Your task to perform on an android device: Open calendar and show me the first week of next month Image 0: 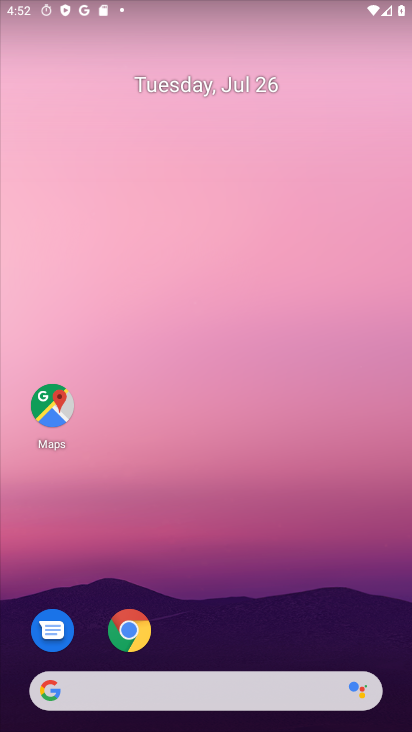
Step 0: drag from (243, 548) to (271, 60)
Your task to perform on an android device: Open calendar and show me the first week of next month Image 1: 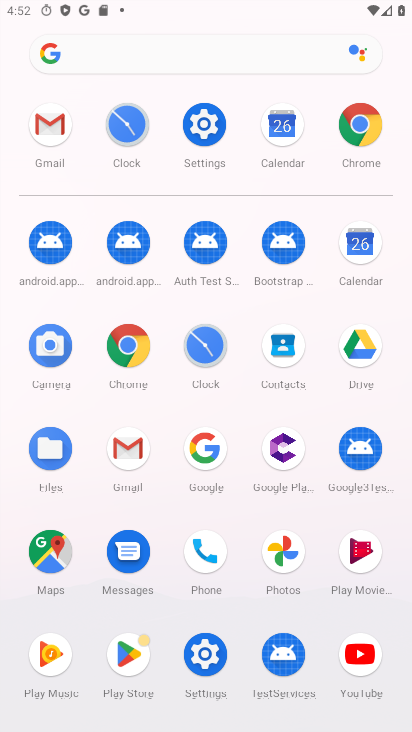
Step 1: click (361, 250)
Your task to perform on an android device: Open calendar and show me the first week of next month Image 2: 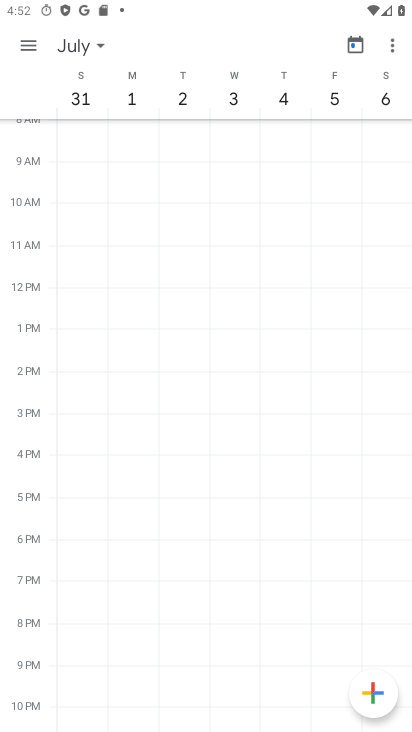
Step 2: click (91, 41)
Your task to perform on an android device: Open calendar and show me the first week of next month Image 3: 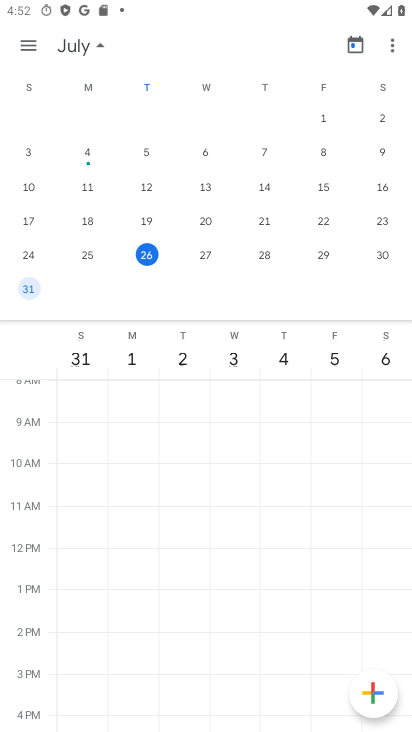
Step 3: drag from (367, 194) to (95, 182)
Your task to perform on an android device: Open calendar and show me the first week of next month Image 4: 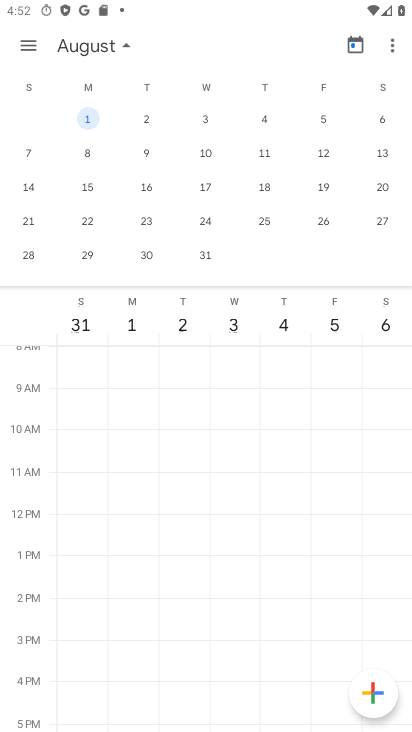
Step 4: click (162, 112)
Your task to perform on an android device: Open calendar and show me the first week of next month Image 5: 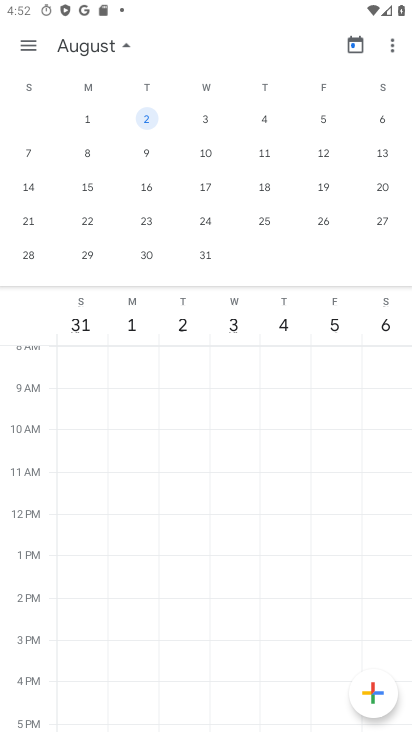
Step 5: task complete